Your task to perform on an android device: Check the news Image 0: 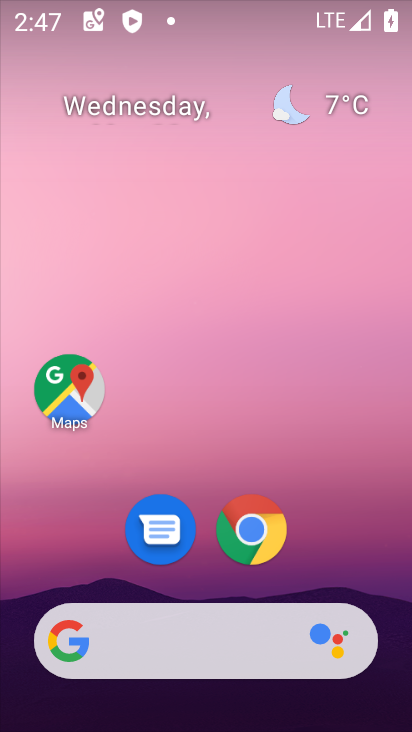
Step 0: drag from (340, 519) to (344, 2)
Your task to perform on an android device: Check the news Image 1: 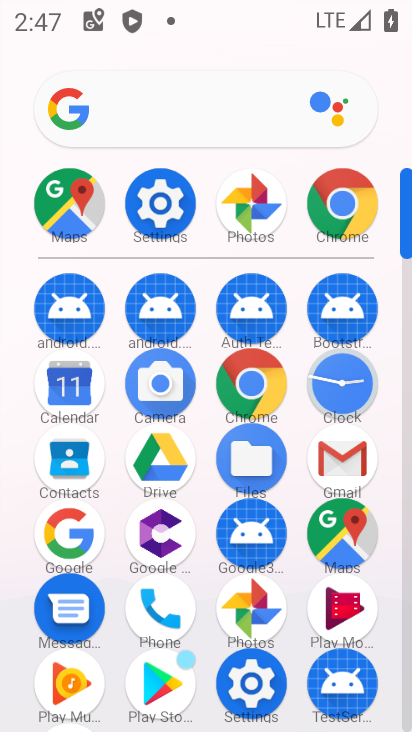
Step 1: click (356, 203)
Your task to perform on an android device: Check the news Image 2: 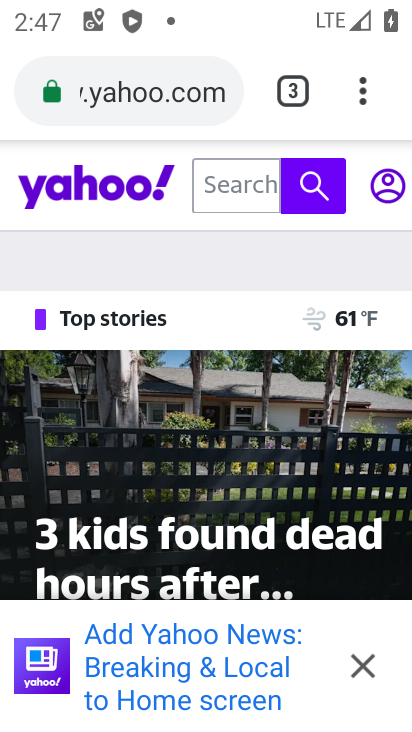
Step 2: task complete